Your task to perform on an android device: Open Youtube and go to the subscriptions tab Image 0: 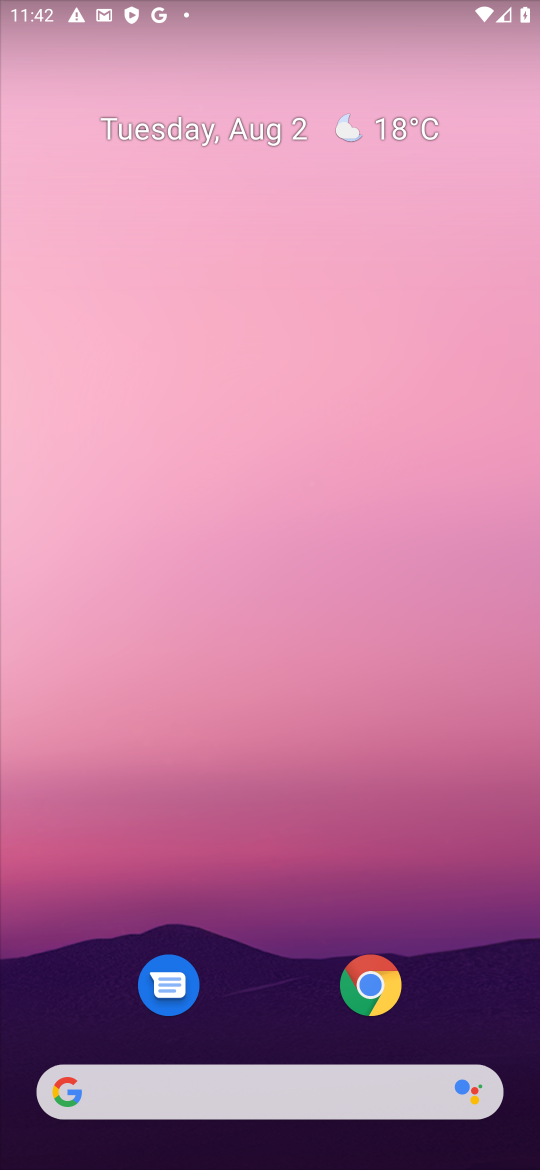
Step 0: drag from (274, 1033) to (300, 432)
Your task to perform on an android device: Open Youtube and go to the subscriptions tab Image 1: 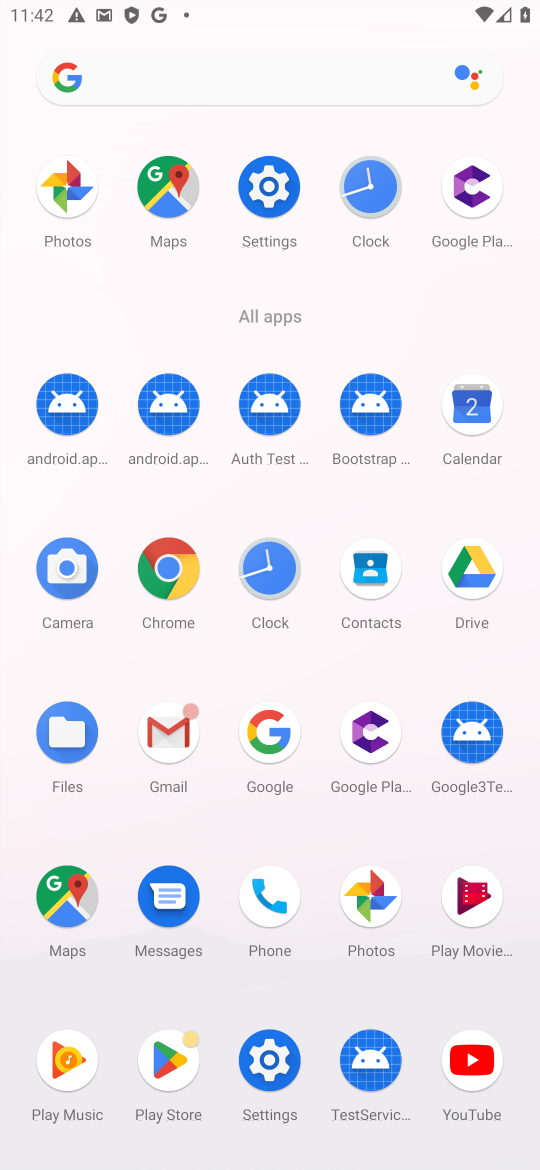
Step 1: click (456, 1068)
Your task to perform on an android device: Open Youtube and go to the subscriptions tab Image 2: 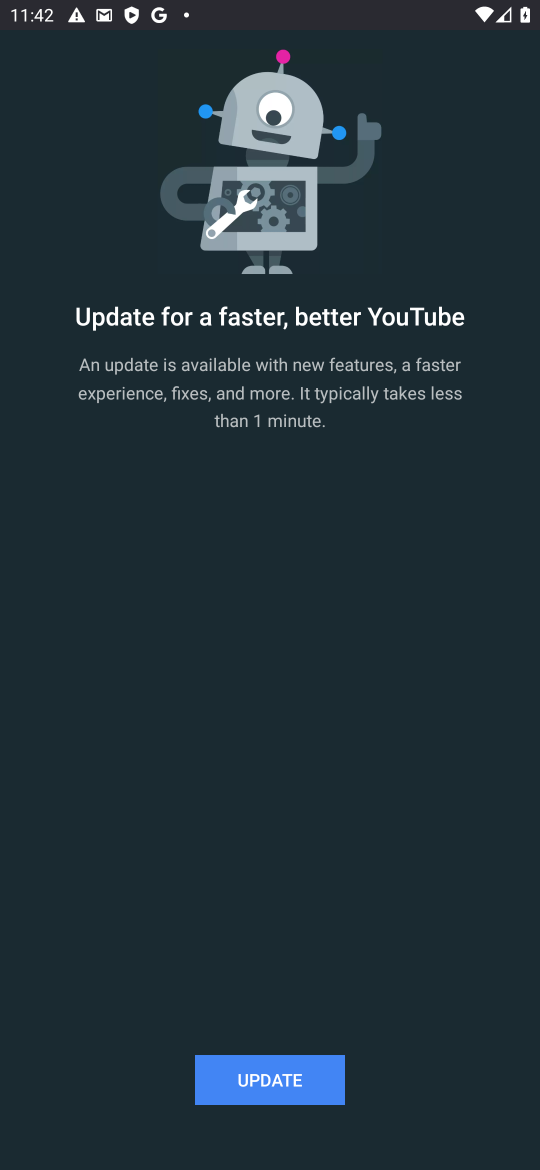
Step 2: click (284, 1082)
Your task to perform on an android device: Open Youtube and go to the subscriptions tab Image 3: 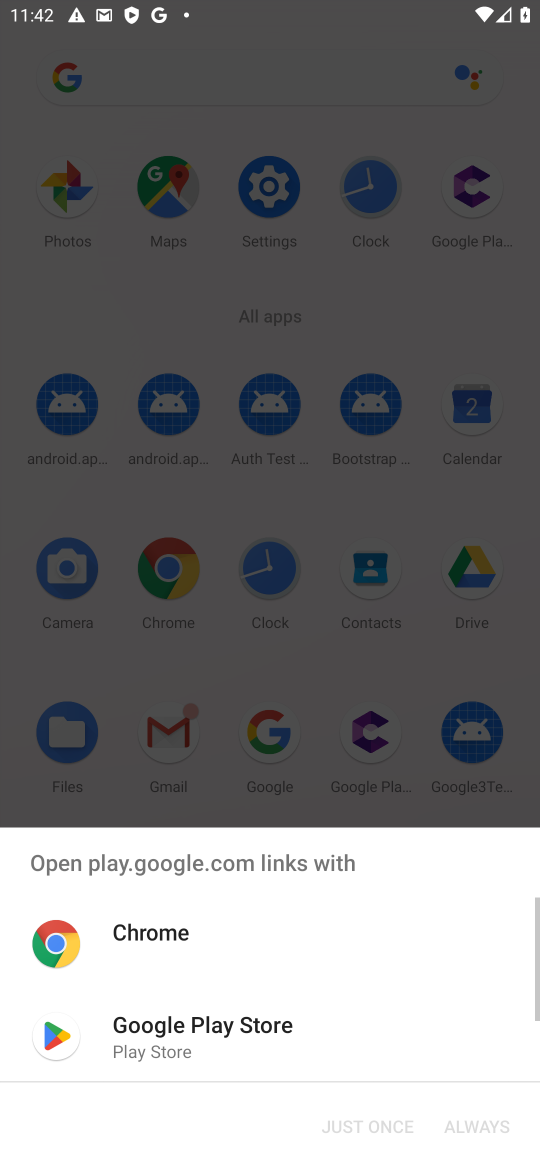
Step 3: click (172, 1025)
Your task to perform on an android device: Open Youtube and go to the subscriptions tab Image 4: 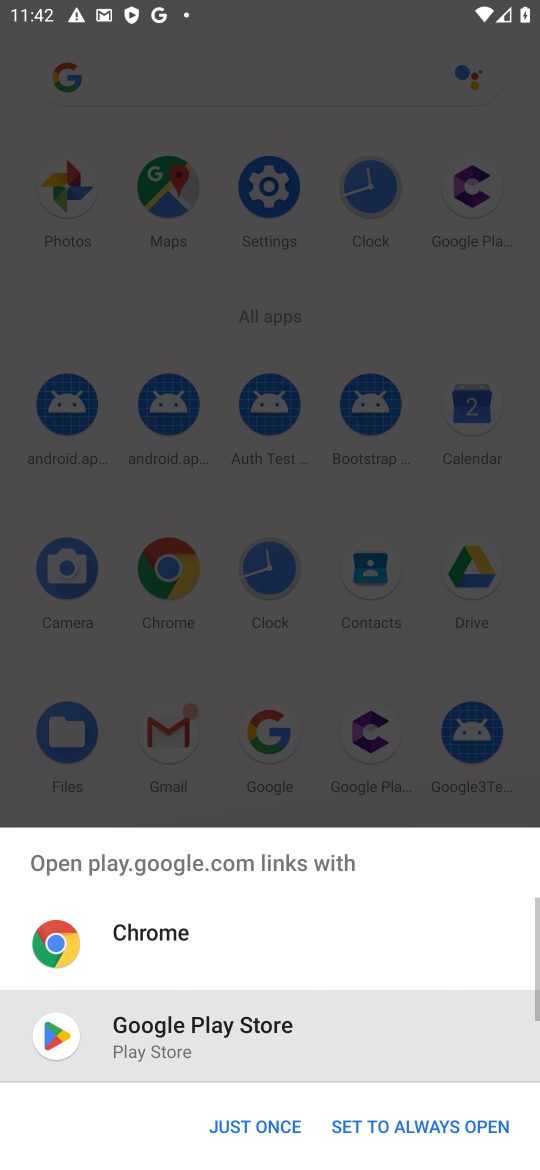
Step 4: click (243, 1125)
Your task to perform on an android device: Open Youtube and go to the subscriptions tab Image 5: 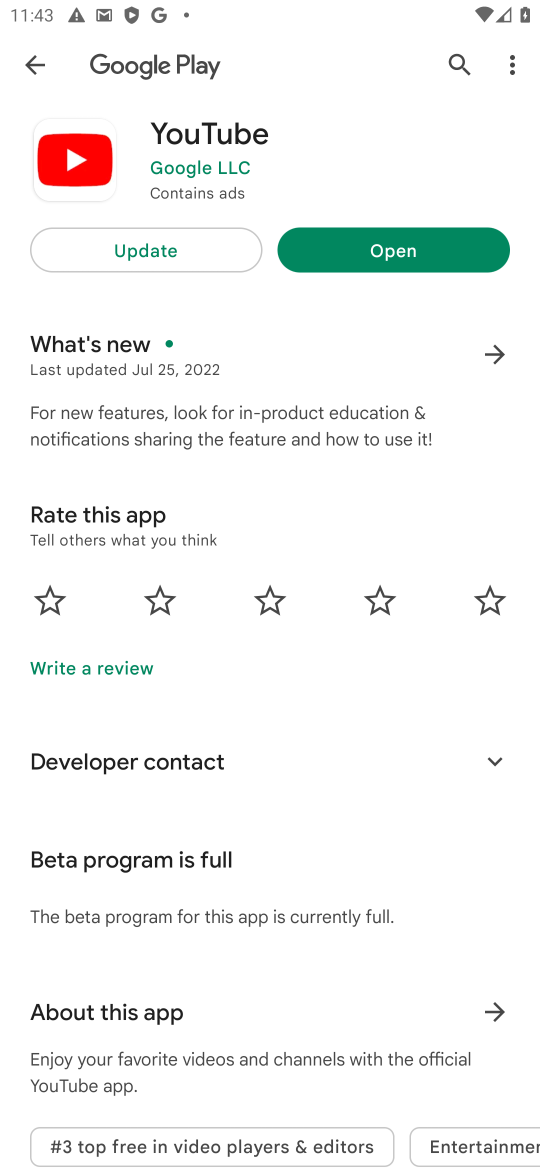
Step 5: click (174, 258)
Your task to perform on an android device: Open Youtube and go to the subscriptions tab Image 6: 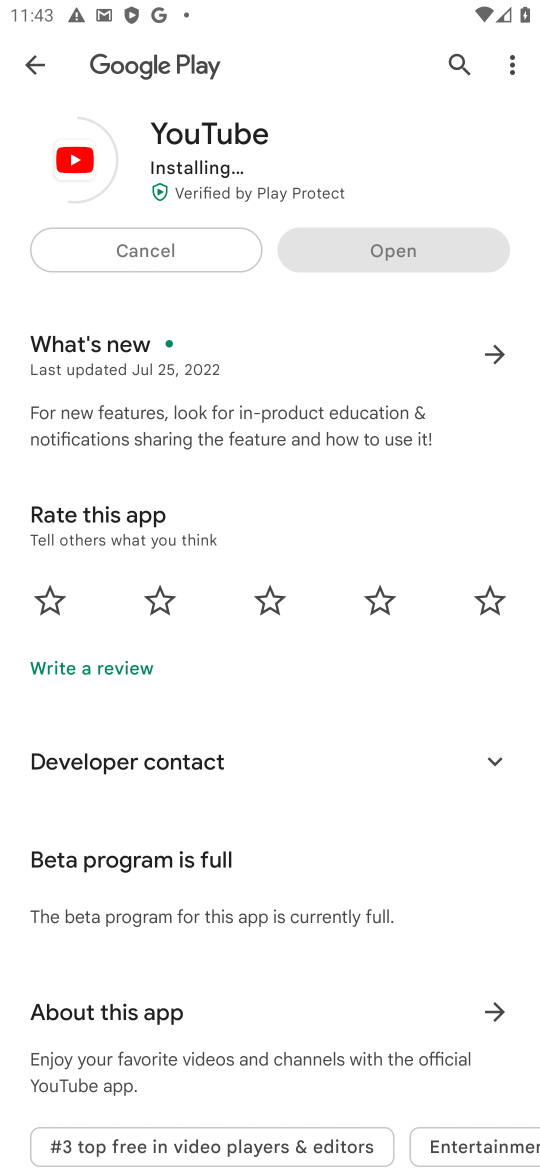
Step 6: task complete